Your task to perform on an android device: add a contact Image 0: 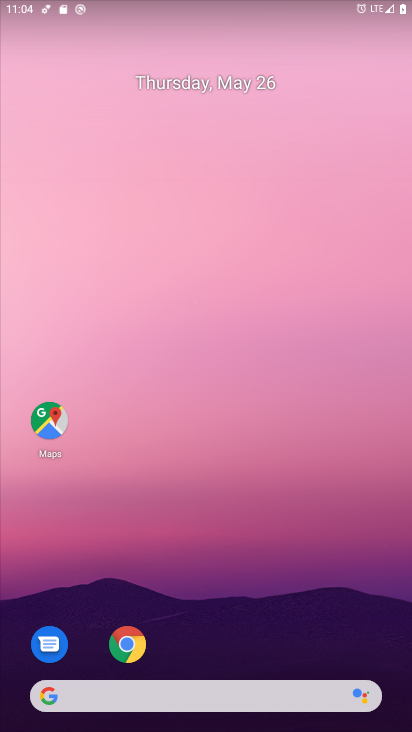
Step 0: drag from (359, 631) to (364, 259)
Your task to perform on an android device: add a contact Image 1: 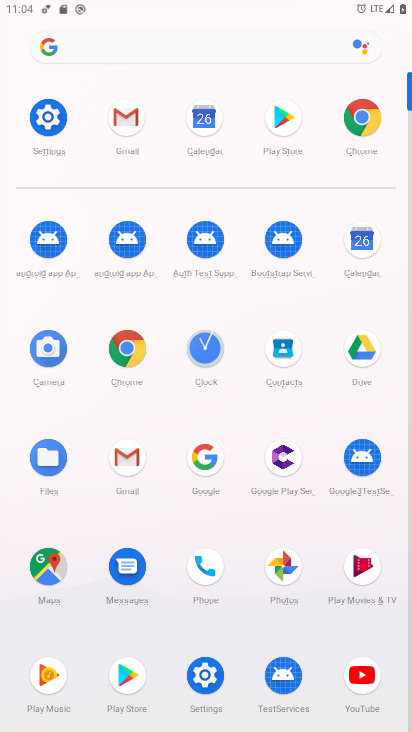
Step 1: click (288, 359)
Your task to perform on an android device: add a contact Image 2: 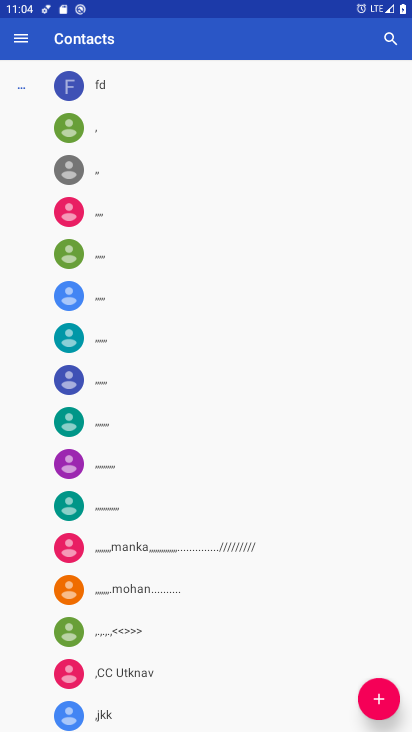
Step 2: click (388, 711)
Your task to perform on an android device: add a contact Image 3: 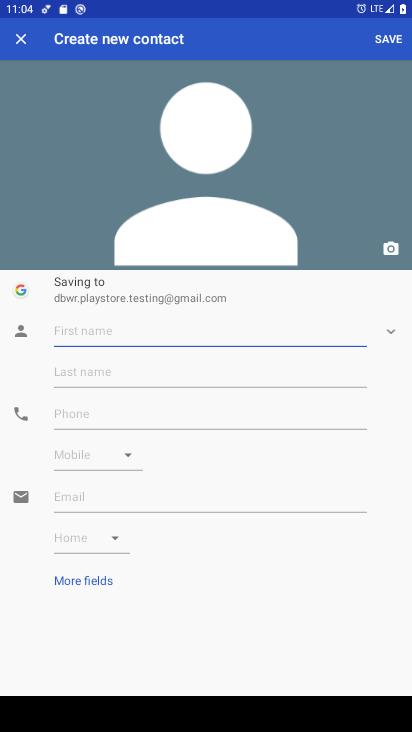
Step 3: click (224, 327)
Your task to perform on an android device: add a contact Image 4: 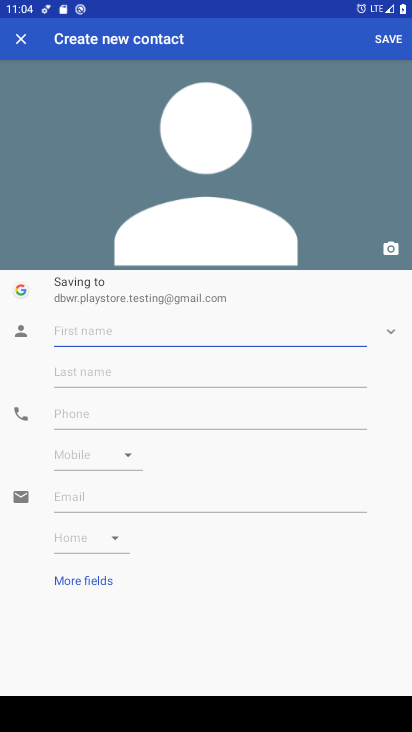
Step 4: type "life "
Your task to perform on an android device: add a contact Image 5: 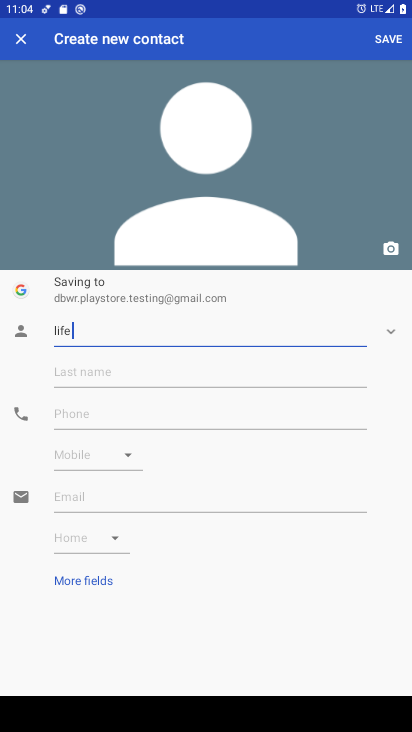
Step 5: click (299, 398)
Your task to perform on an android device: add a contact Image 6: 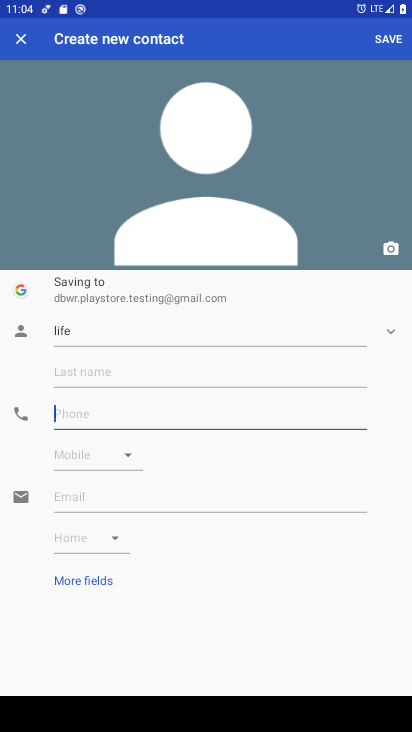
Step 6: type "123456789"
Your task to perform on an android device: add a contact Image 7: 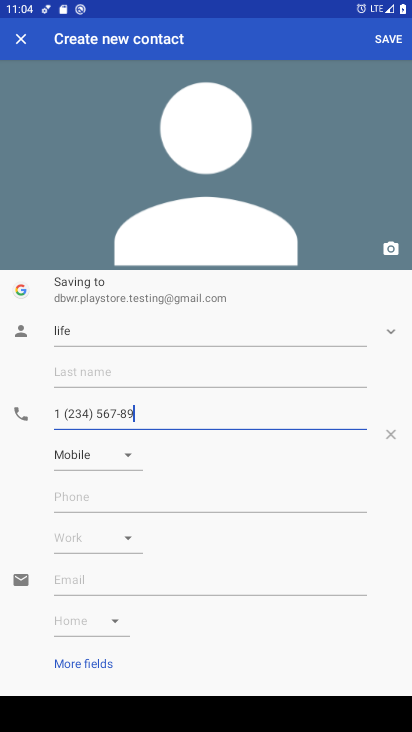
Step 7: click (387, 46)
Your task to perform on an android device: add a contact Image 8: 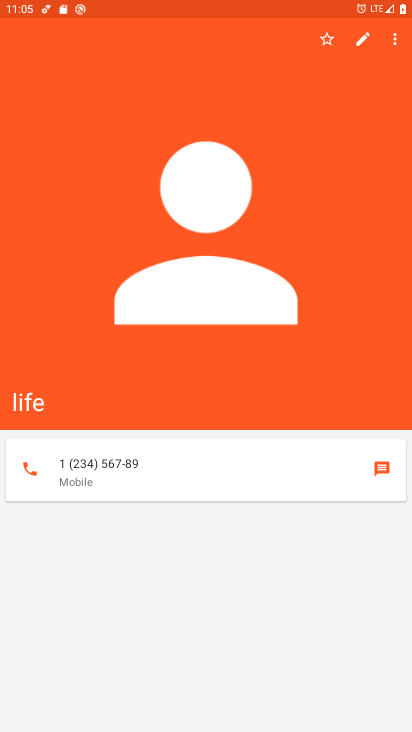
Step 8: task complete